Your task to perform on an android device: Open battery settings Image 0: 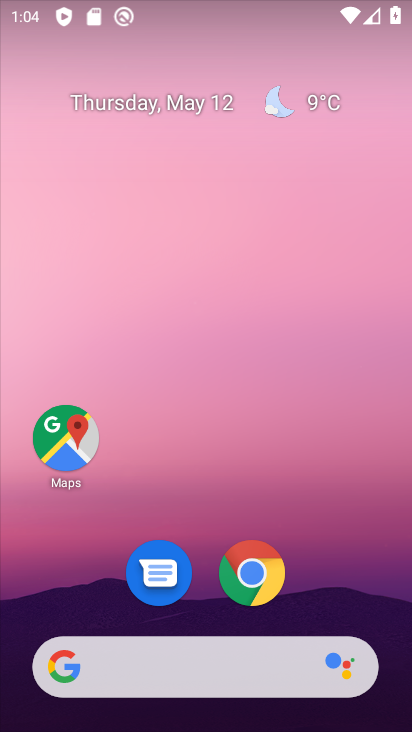
Step 0: drag from (210, 610) to (275, 36)
Your task to perform on an android device: Open battery settings Image 1: 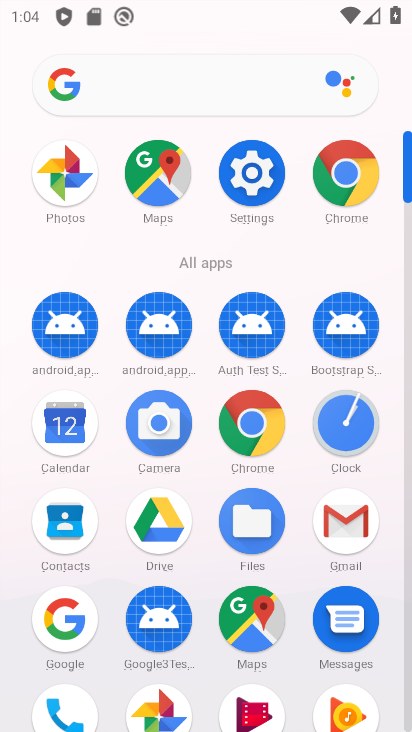
Step 1: click (261, 154)
Your task to perform on an android device: Open battery settings Image 2: 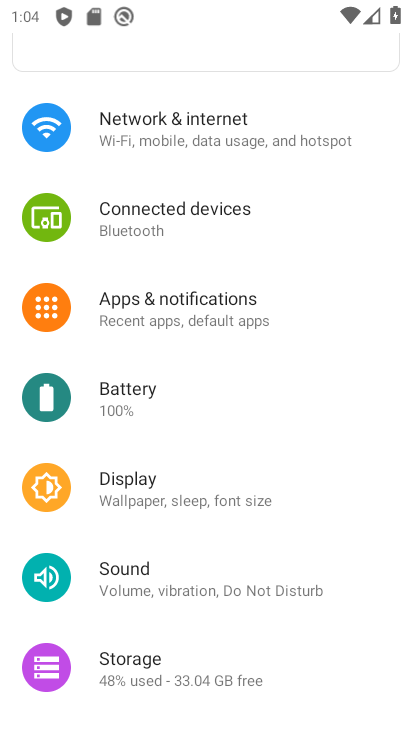
Step 2: click (132, 403)
Your task to perform on an android device: Open battery settings Image 3: 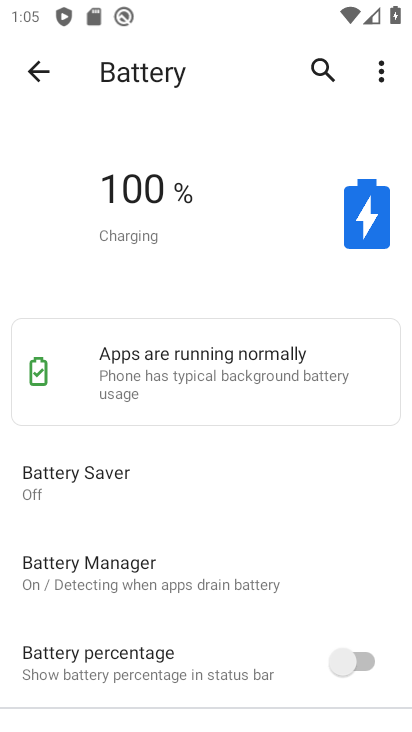
Step 3: task complete